Your task to perform on an android device: turn off wifi Image 0: 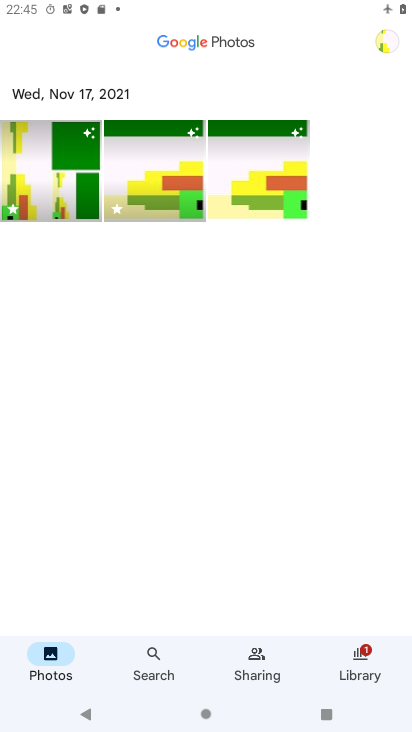
Step 0: press home button
Your task to perform on an android device: turn off wifi Image 1: 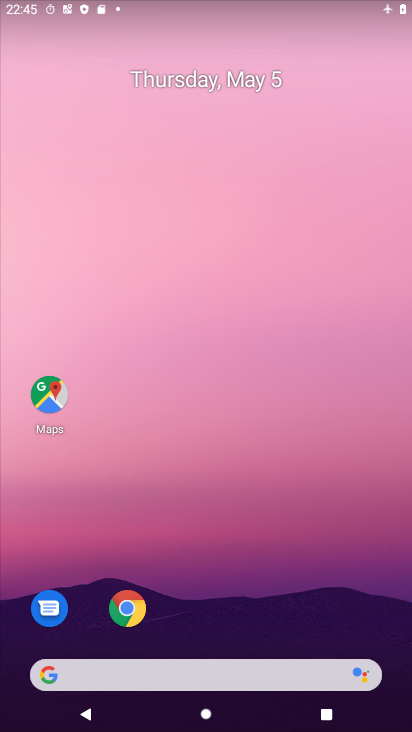
Step 1: drag from (288, 1) to (284, 500)
Your task to perform on an android device: turn off wifi Image 2: 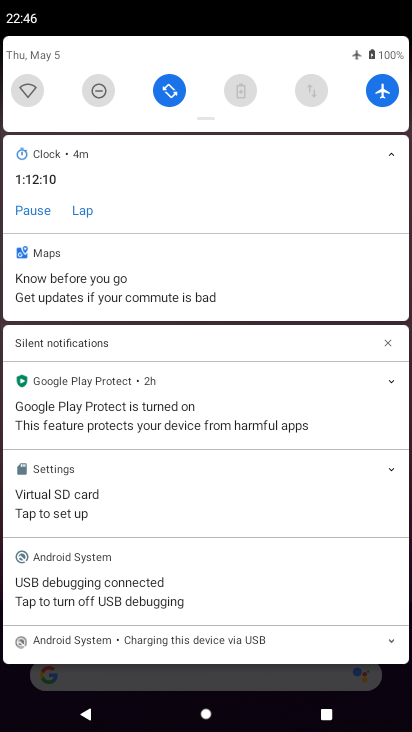
Step 2: drag from (195, 105) to (217, 586)
Your task to perform on an android device: turn off wifi Image 3: 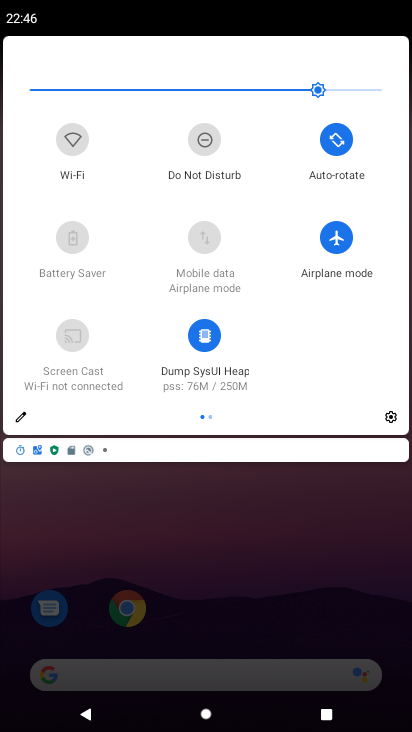
Step 3: drag from (331, 487) to (357, 0)
Your task to perform on an android device: turn off wifi Image 4: 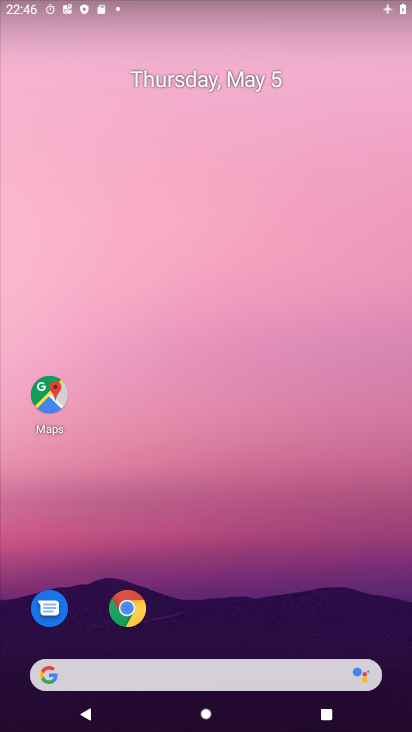
Step 4: drag from (270, 650) to (204, 34)
Your task to perform on an android device: turn off wifi Image 5: 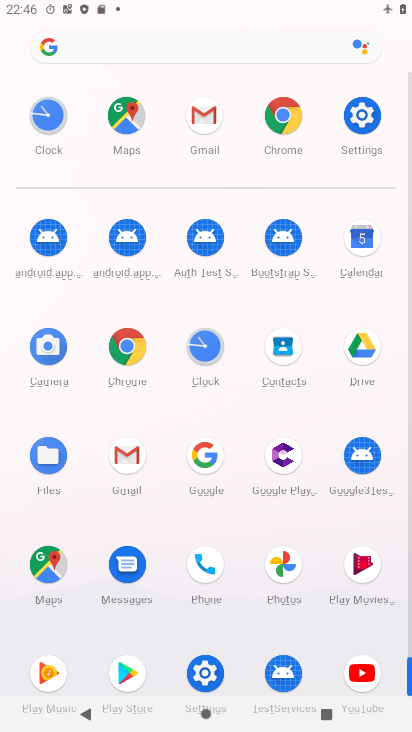
Step 5: click (361, 122)
Your task to perform on an android device: turn off wifi Image 6: 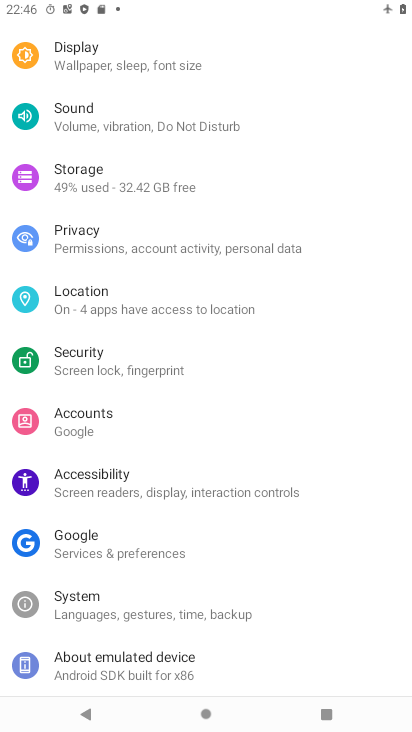
Step 6: drag from (170, 138) to (229, 655)
Your task to perform on an android device: turn off wifi Image 7: 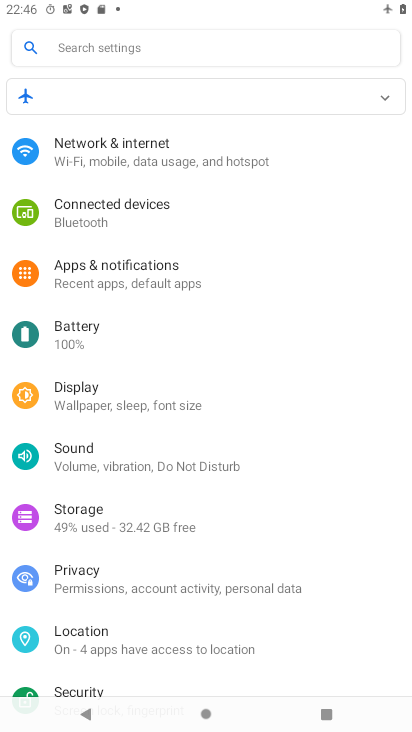
Step 7: click (176, 160)
Your task to perform on an android device: turn off wifi Image 8: 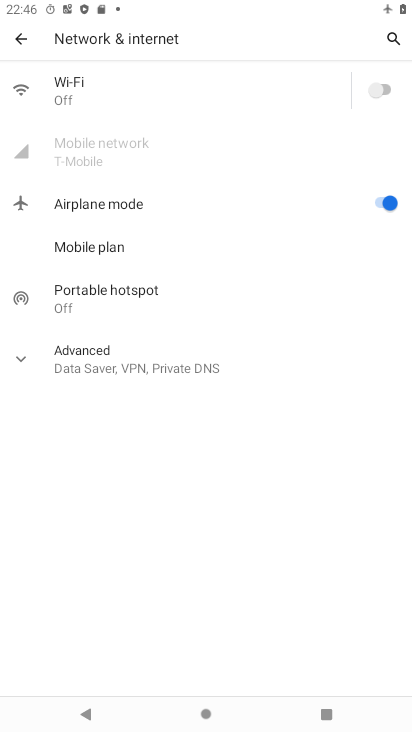
Step 8: task complete